Your task to perform on an android device: Open the map Image 0: 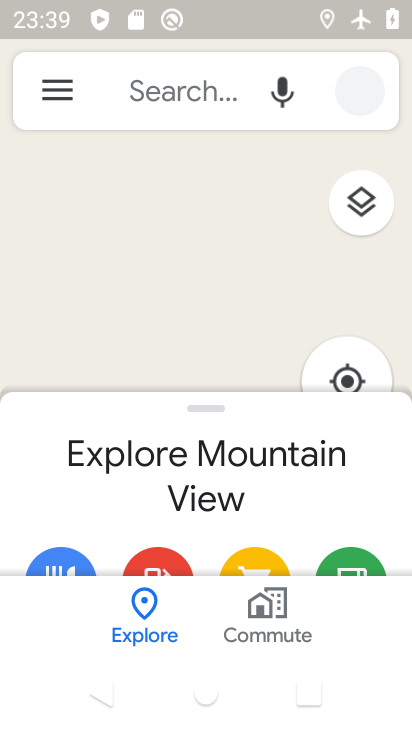
Step 0: click (265, 98)
Your task to perform on an android device: Open the map Image 1: 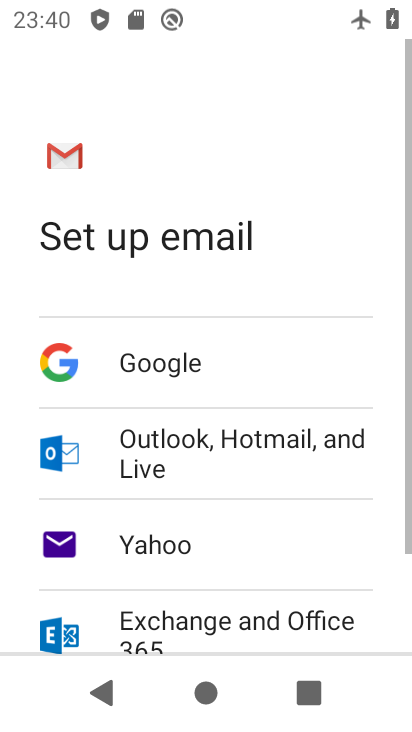
Step 1: press home button
Your task to perform on an android device: Open the map Image 2: 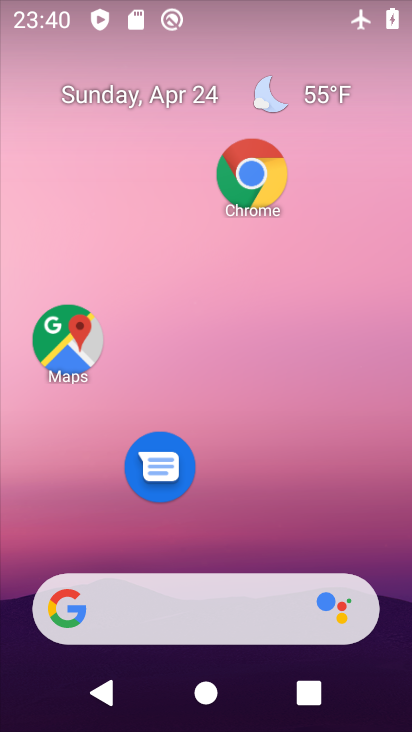
Step 2: click (68, 346)
Your task to perform on an android device: Open the map Image 3: 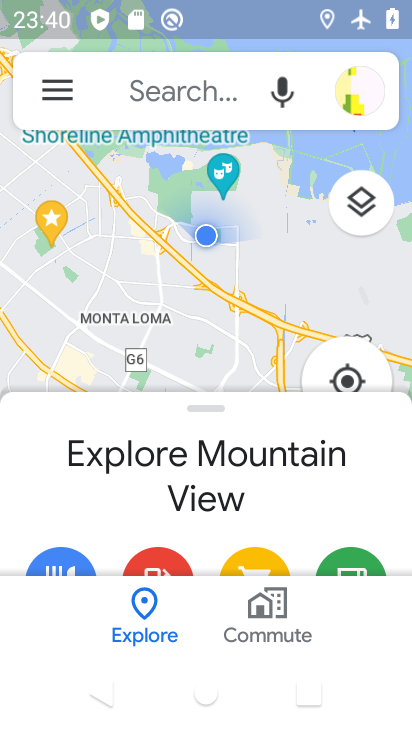
Step 3: task complete